Your task to perform on an android device: Go to Maps Image 0: 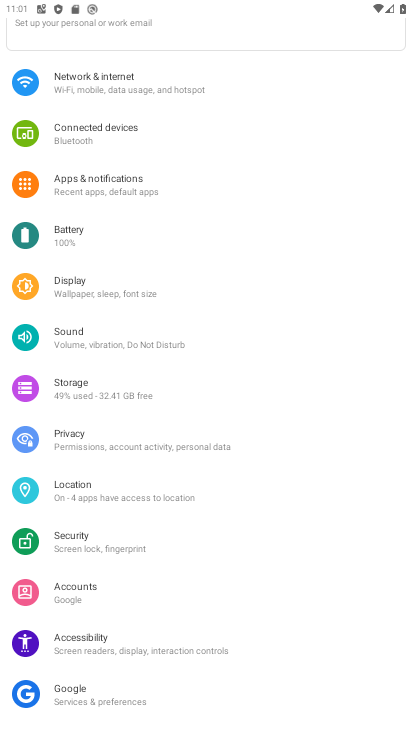
Step 0: press home button
Your task to perform on an android device: Go to Maps Image 1: 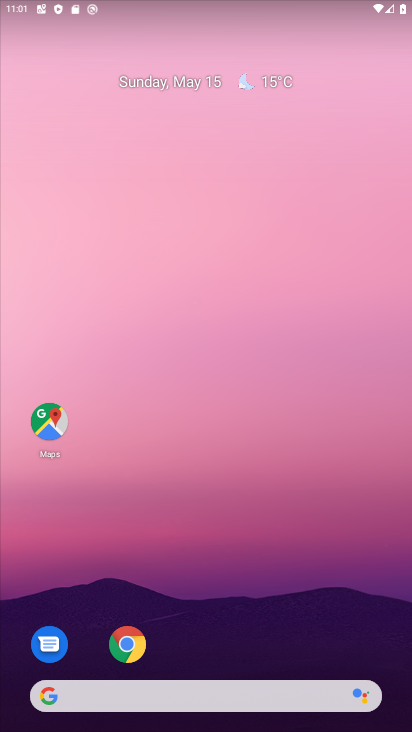
Step 1: click (51, 437)
Your task to perform on an android device: Go to Maps Image 2: 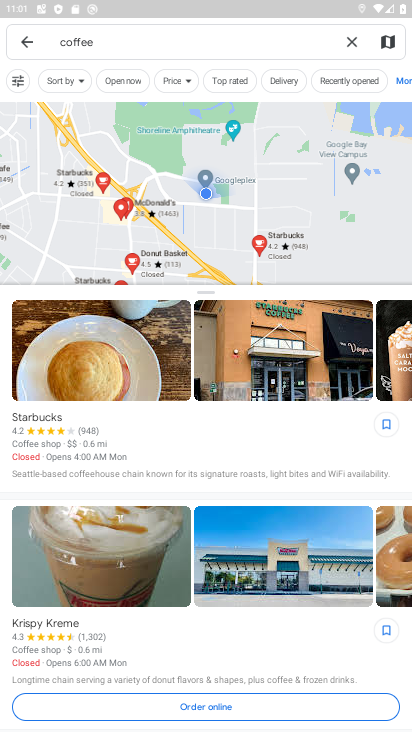
Step 2: click (23, 36)
Your task to perform on an android device: Go to Maps Image 3: 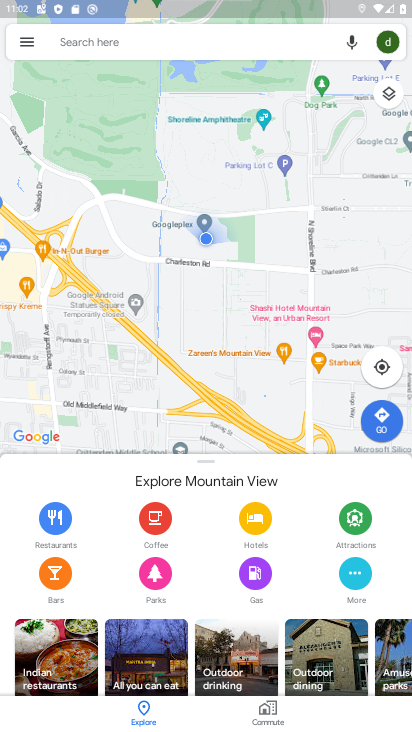
Step 3: task complete